Your task to perform on an android device: turn on data saver in the chrome app Image 0: 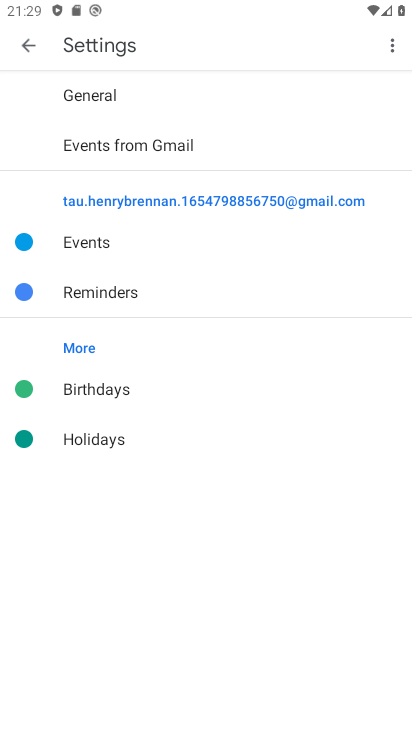
Step 0: press back button
Your task to perform on an android device: turn on data saver in the chrome app Image 1: 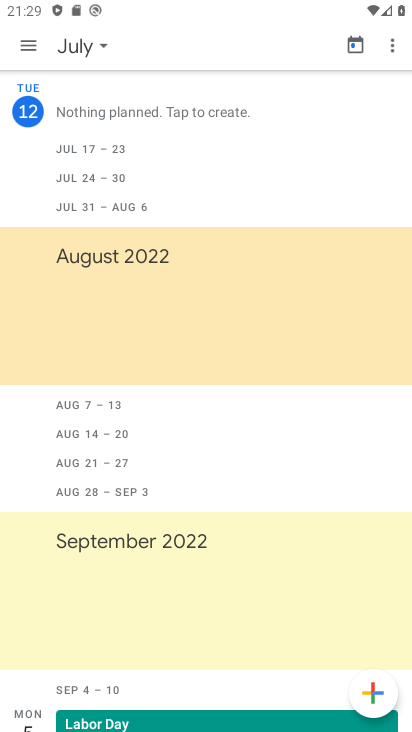
Step 1: press back button
Your task to perform on an android device: turn on data saver in the chrome app Image 2: 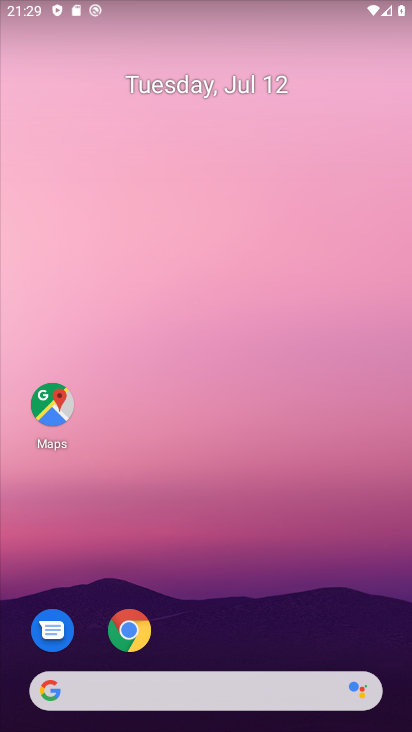
Step 2: click (141, 626)
Your task to perform on an android device: turn on data saver in the chrome app Image 3: 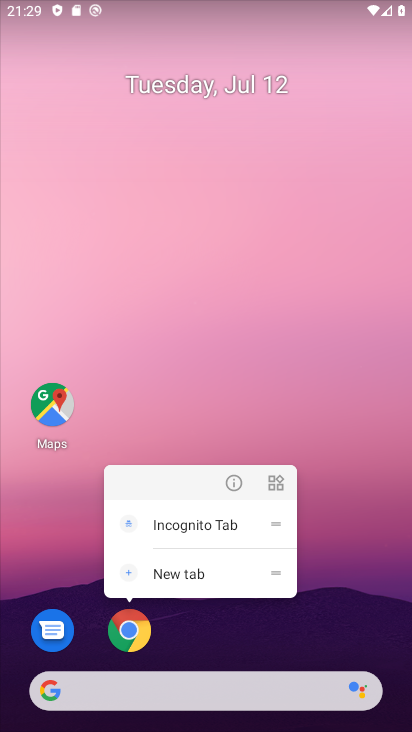
Step 3: click (134, 621)
Your task to perform on an android device: turn on data saver in the chrome app Image 4: 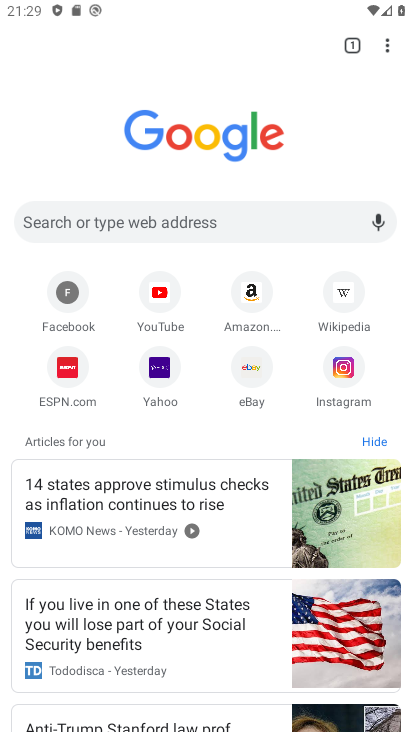
Step 4: drag from (391, 38) to (245, 384)
Your task to perform on an android device: turn on data saver in the chrome app Image 5: 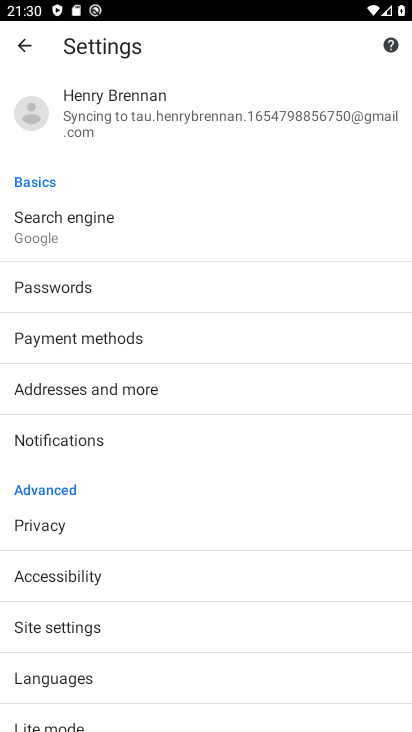
Step 5: drag from (82, 685) to (195, 363)
Your task to perform on an android device: turn on data saver in the chrome app Image 6: 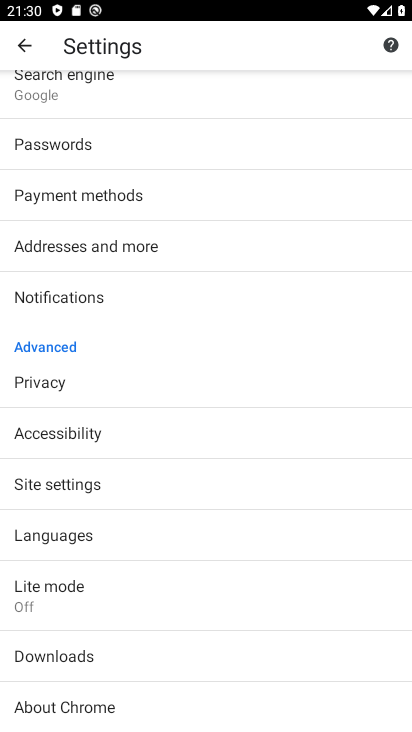
Step 6: click (104, 587)
Your task to perform on an android device: turn on data saver in the chrome app Image 7: 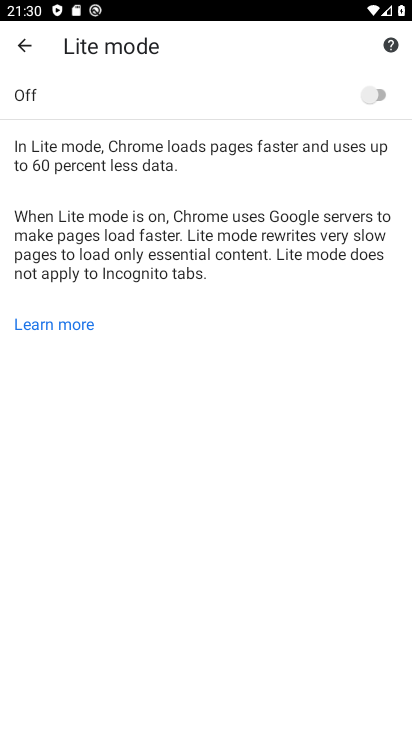
Step 7: click (374, 87)
Your task to perform on an android device: turn on data saver in the chrome app Image 8: 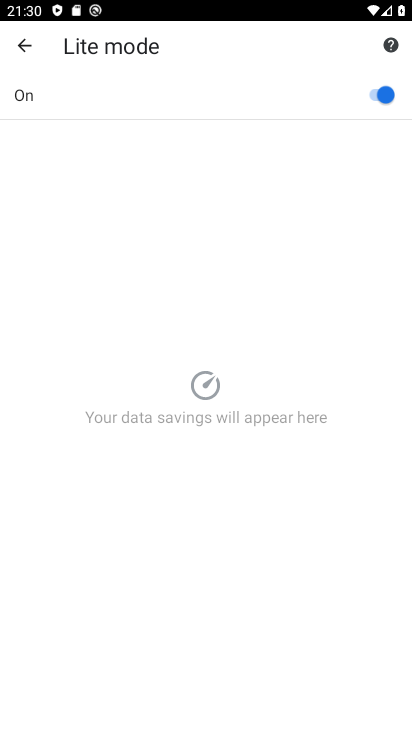
Step 8: task complete